Your task to perform on an android device: turn on bluetooth scan Image 0: 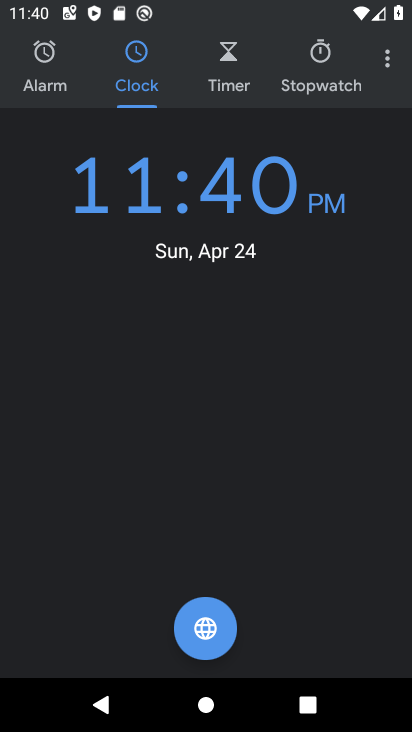
Step 0: press home button
Your task to perform on an android device: turn on bluetooth scan Image 1: 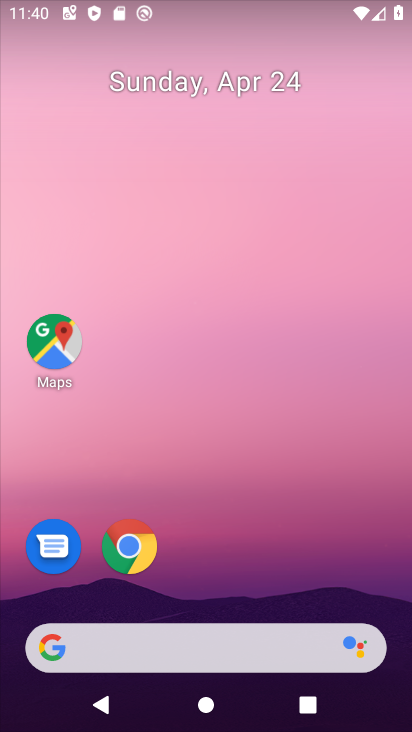
Step 1: drag from (214, 582) to (224, 149)
Your task to perform on an android device: turn on bluetooth scan Image 2: 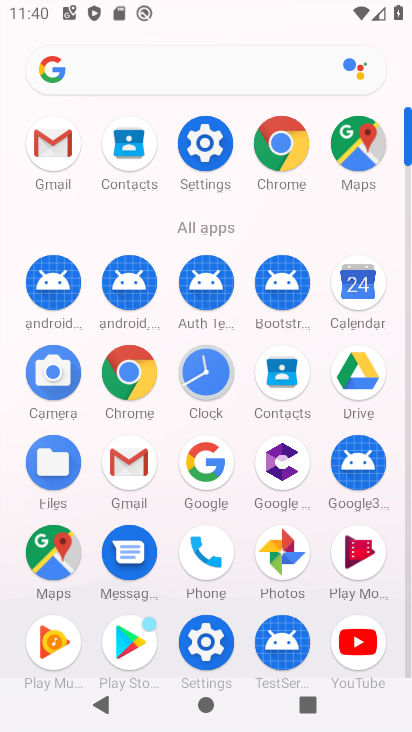
Step 2: click (195, 156)
Your task to perform on an android device: turn on bluetooth scan Image 3: 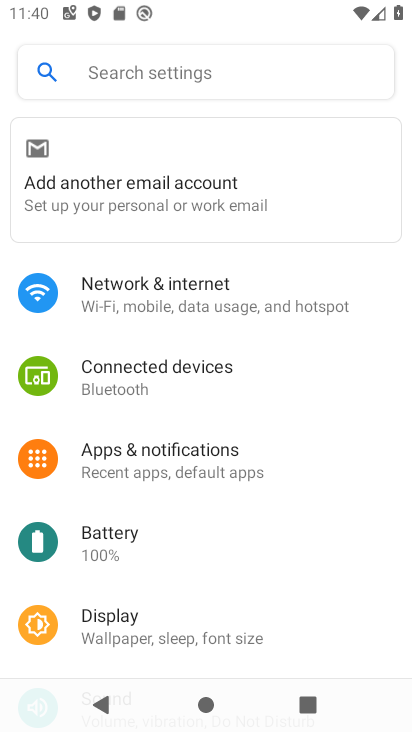
Step 3: drag from (219, 522) to (252, 308)
Your task to perform on an android device: turn on bluetooth scan Image 4: 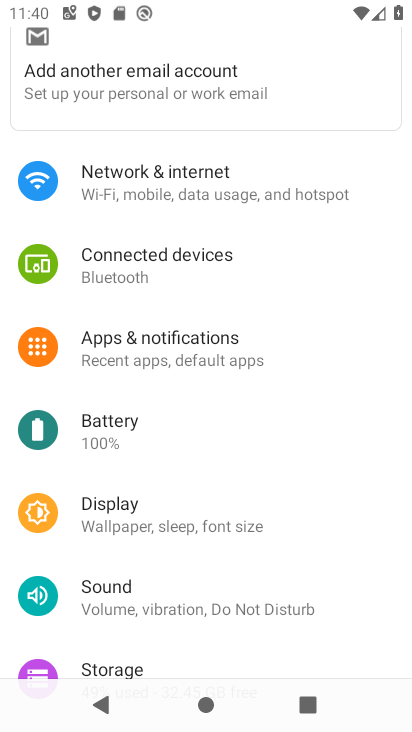
Step 4: drag from (240, 543) to (259, 293)
Your task to perform on an android device: turn on bluetooth scan Image 5: 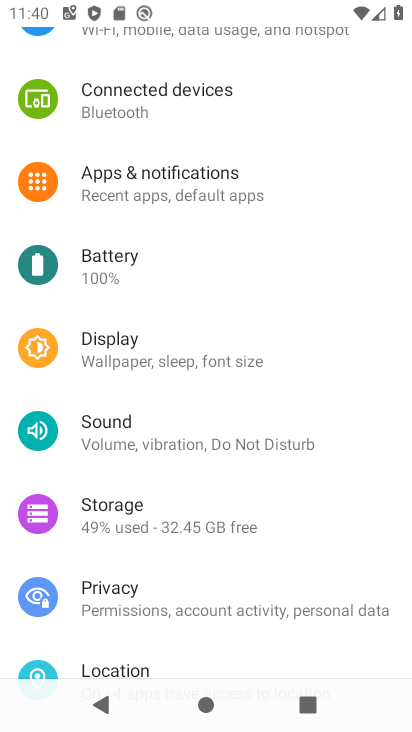
Step 5: drag from (237, 520) to (267, 337)
Your task to perform on an android device: turn on bluetooth scan Image 6: 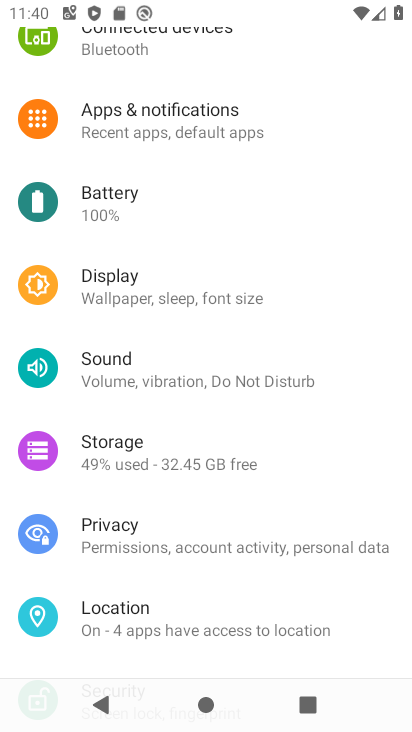
Step 6: click (192, 596)
Your task to perform on an android device: turn on bluetooth scan Image 7: 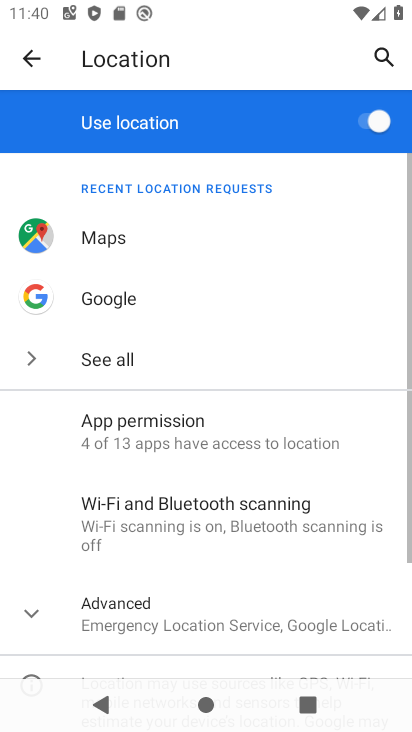
Step 7: drag from (237, 553) to (267, 331)
Your task to perform on an android device: turn on bluetooth scan Image 8: 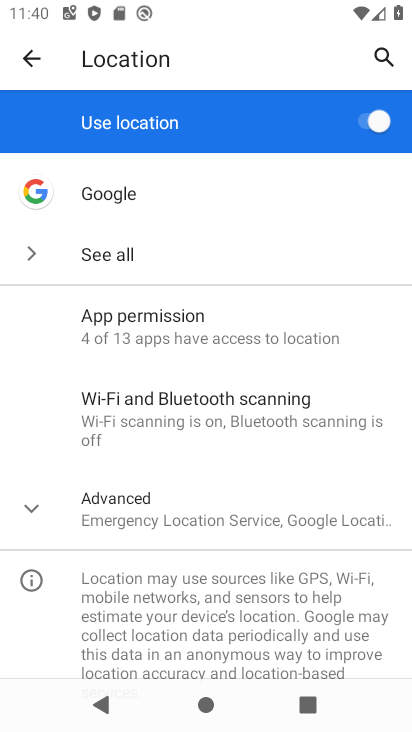
Step 8: click (274, 418)
Your task to perform on an android device: turn on bluetooth scan Image 9: 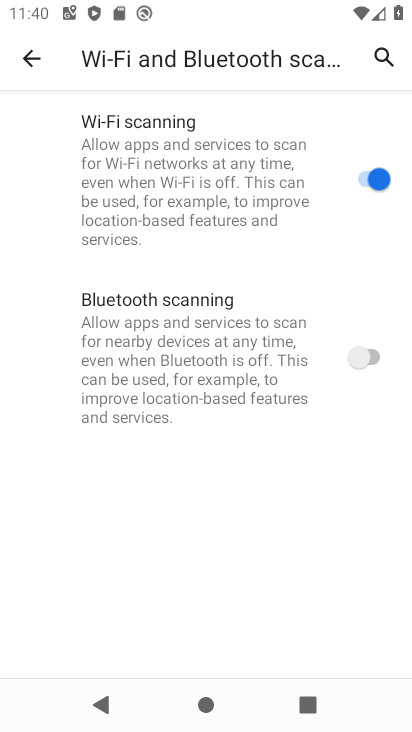
Step 9: click (373, 357)
Your task to perform on an android device: turn on bluetooth scan Image 10: 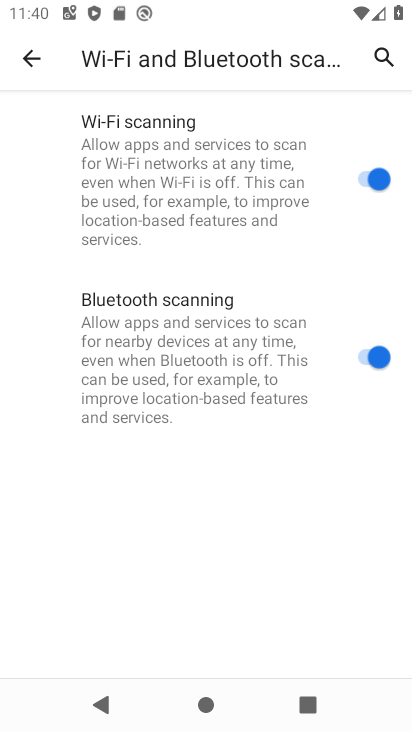
Step 10: task complete